Your task to perform on an android device: toggle wifi Image 0: 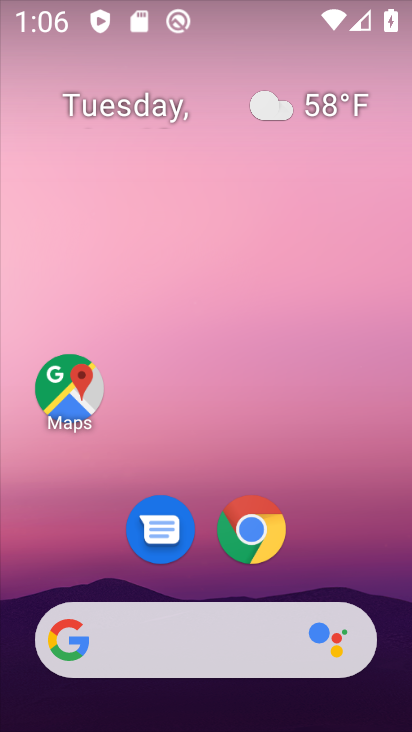
Step 0: drag from (227, 470) to (233, 70)
Your task to perform on an android device: toggle wifi Image 1: 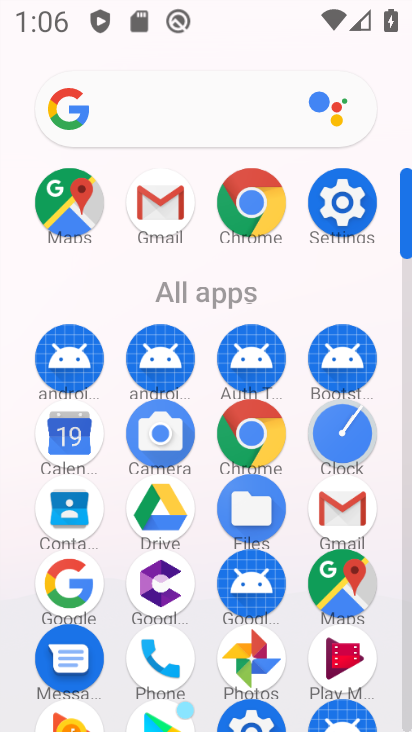
Step 1: click (344, 208)
Your task to perform on an android device: toggle wifi Image 2: 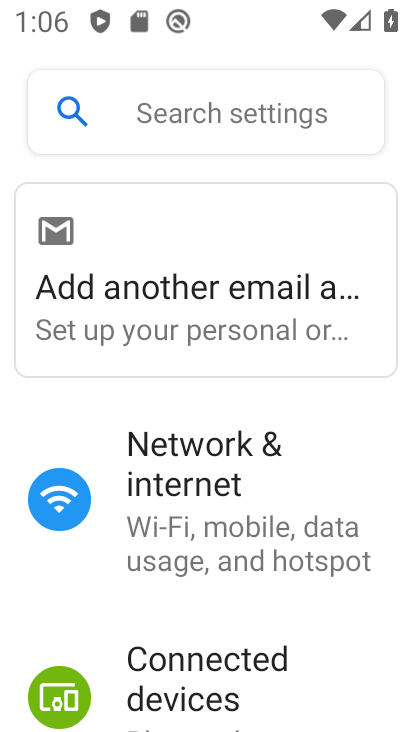
Step 2: drag from (275, 545) to (282, 368)
Your task to perform on an android device: toggle wifi Image 3: 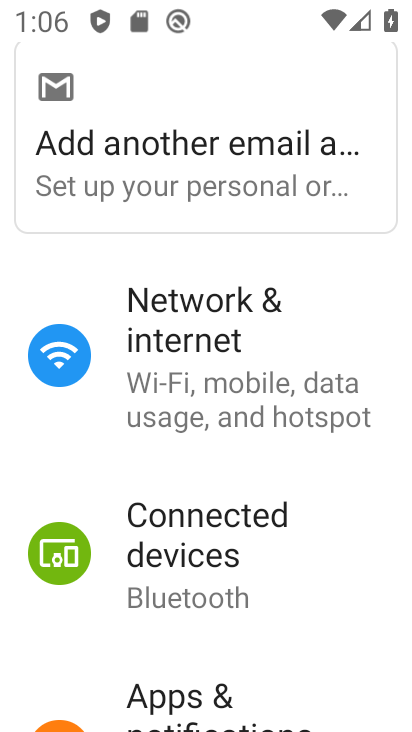
Step 3: click (251, 364)
Your task to perform on an android device: toggle wifi Image 4: 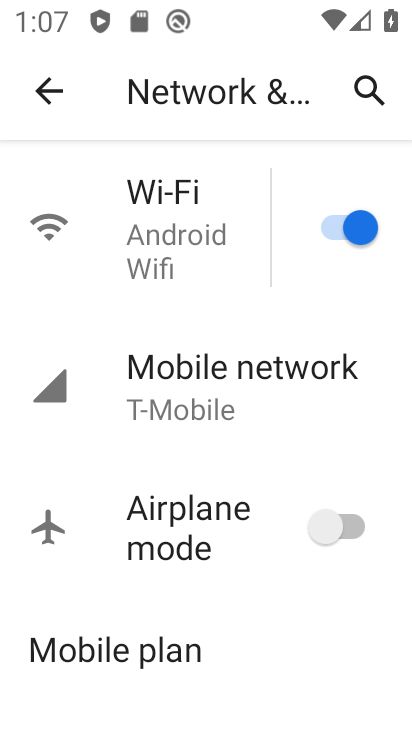
Step 4: drag from (201, 259) to (204, 202)
Your task to perform on an android device: toggle wifi Image 5: 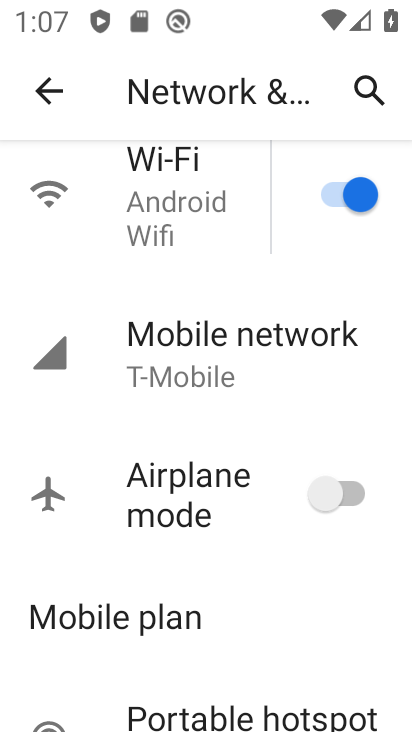
Step 5: click (329, 195)
Your task to perform on an android device: toggle wifi Image 6: 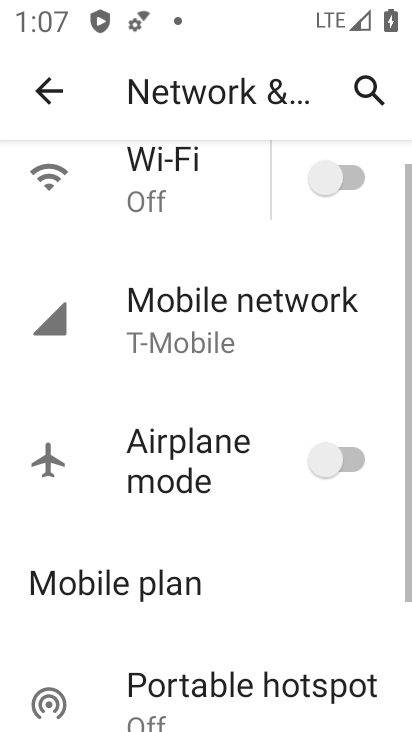
Step 6: task complete